Your task to perform on an android device: Search for Italian restaurants on Maps Image 0: 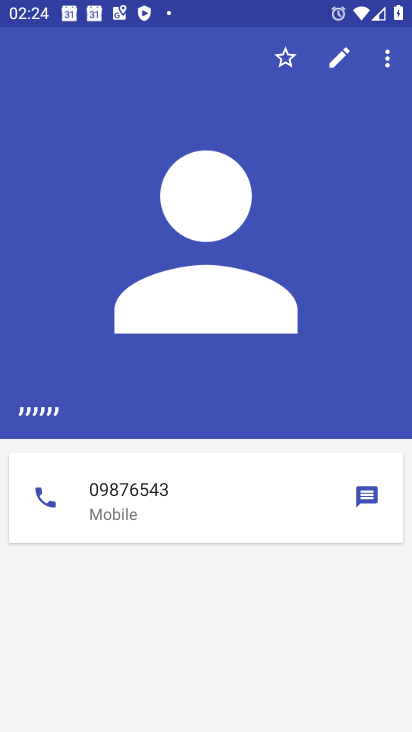
Step 0: press home button
Your task to perform on an android device: Search for Italian restaurants on Maps Image 1: 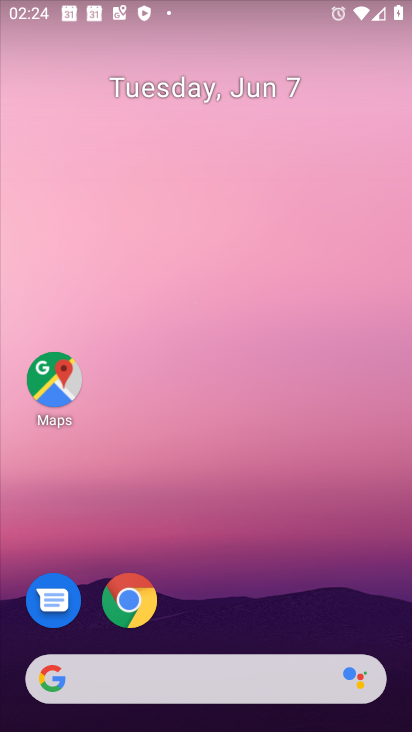
Step 1: drag from (246, 727) to (219, 224)
Your task to perform on an android device: Search for Italian restaurants on Maps Image 2: 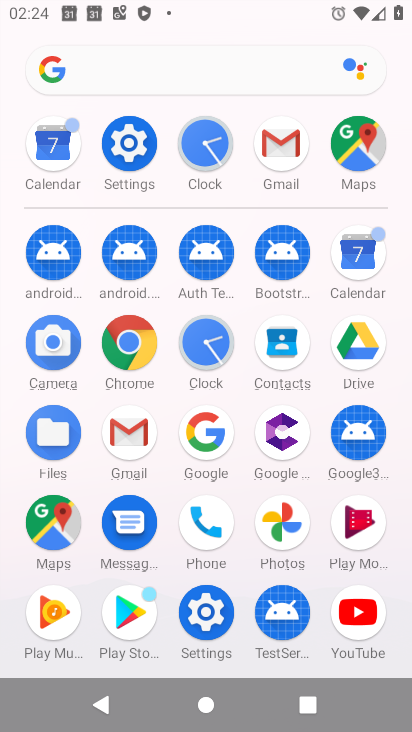
Step 2: click (42, 522)
Your task to perform on an android device: Search for Italian restaurants on Maps Image 3: 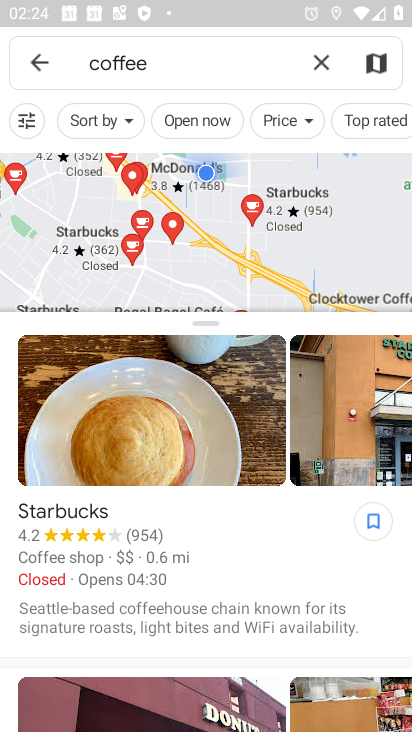
Step 3: click (317, 60)
Your task to perform on an android device: Search for Italian restaurants on Maps Image 4: 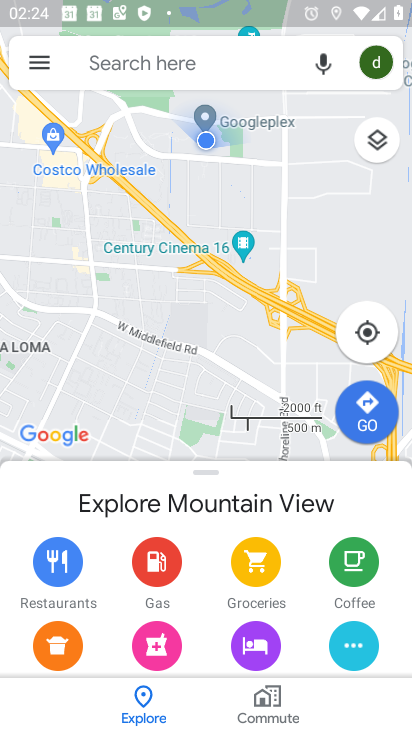
Step 4: click (142, 64)
Your task to perform on an android device: Search for Italian restaurants on Maps Image 5: 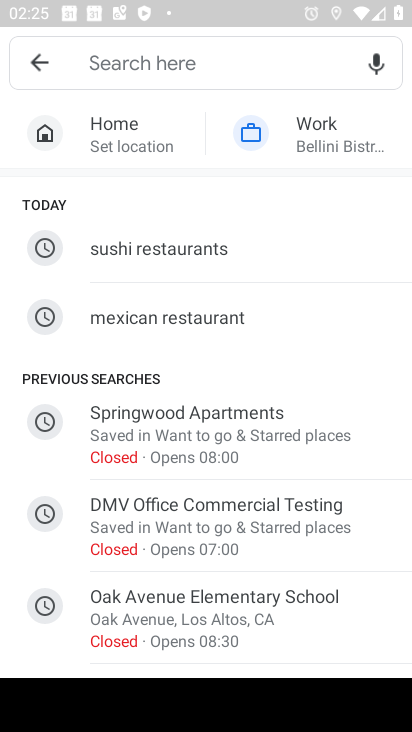
Step 5: type "italian restaurants"
Your task to perform on an android device: Search for Italian restaurants on Maps Image 6: 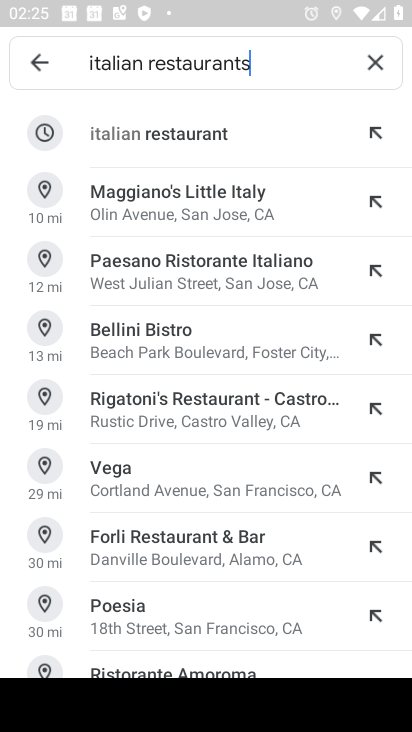
Step 6: click (154, 133)
Your task to perform on an android device: Search for Italian restaurants on Maps Image 7: 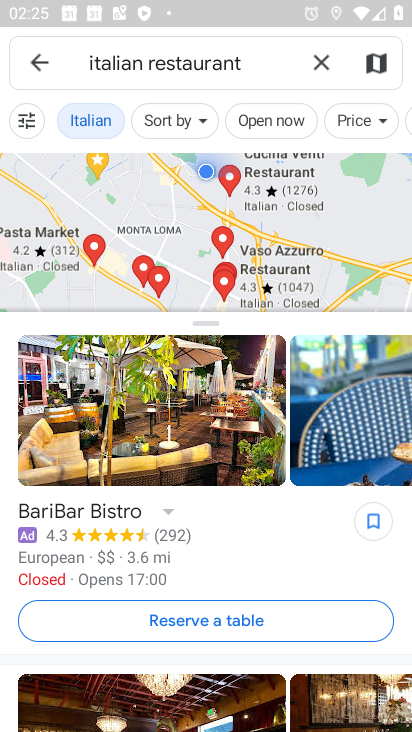
Step 7: task complete